Your task to perform on an android device: check out phone information Image 0: 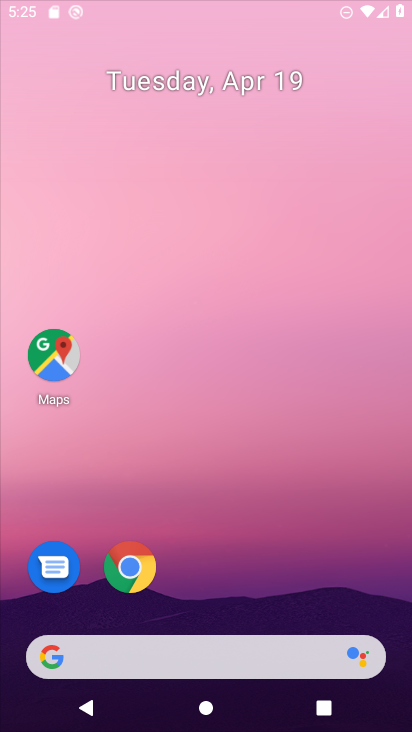
Step 0: click (282, 101)
Your task to perform on an android device: check out phone information Image 1: 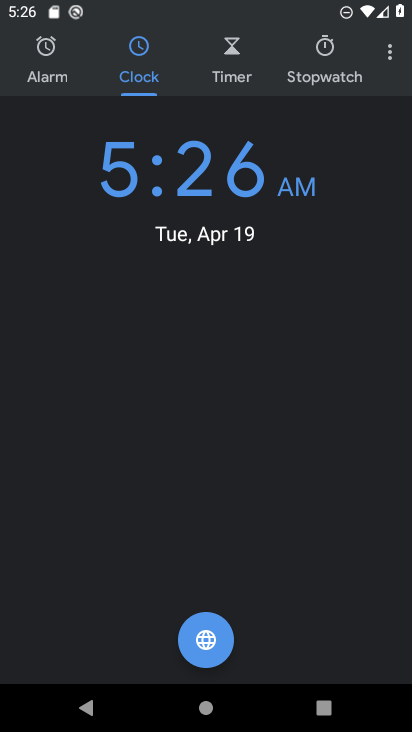
Step 1: press back button
Your task to perform on an android device: check out phone information Image 2: 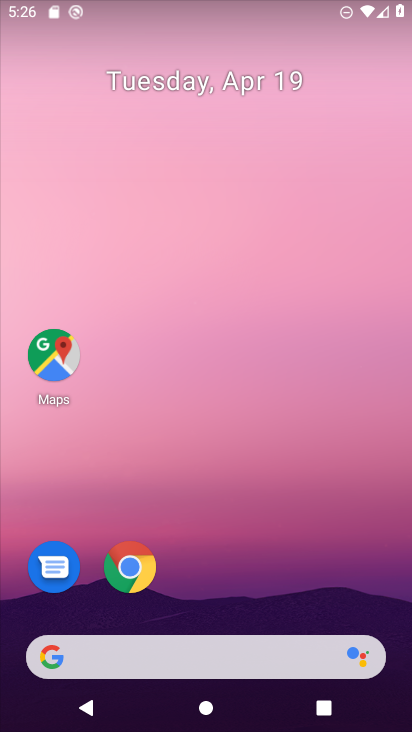
Step 2: drag from (289, 441) to (203, 8)
Your task to perform on an android device: check out phone information Image 3: 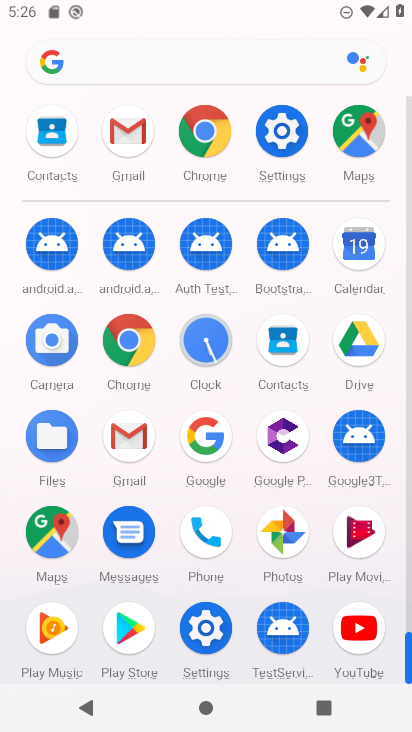
Step 3: drag from (4, 536) to (0, 287)
Your task to perform on an android device: check out phone information Image 4: 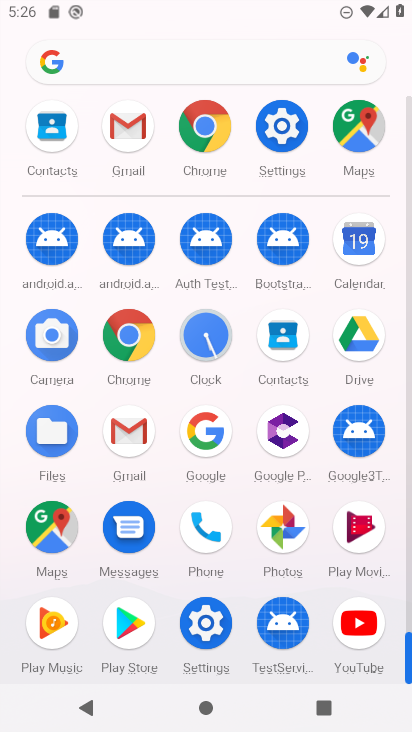
Step 4: click (206, 620)
Your task to perform on an android device: check out phone information Image 5: 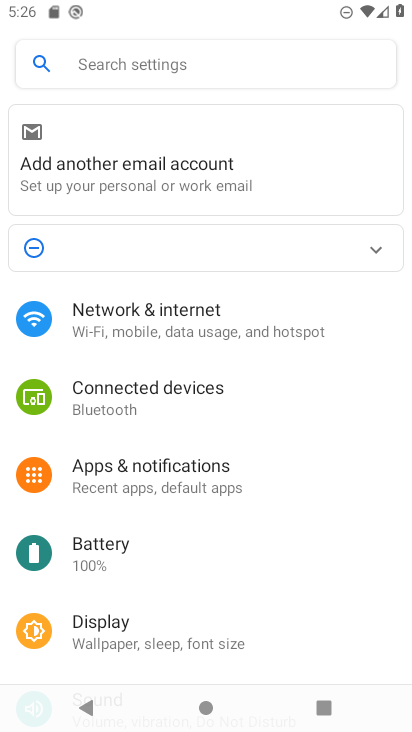
Step 5: drag from (282, 490) to (278, 114)
Your task to perform on an android device: check out phone information Image 6: 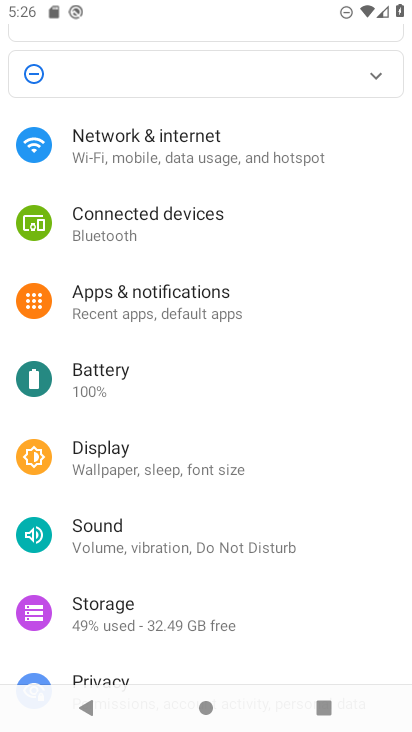
Step 6: click (290, 107)
Your task to perform on an android device: check out phone information Image 7: 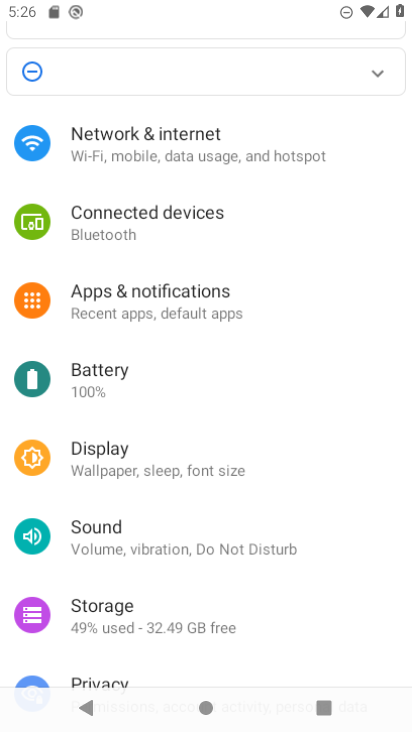
Step 7: drag from (266, 363) to (282, 112)
Your task to perform on an android device: check out phone information Image 8: 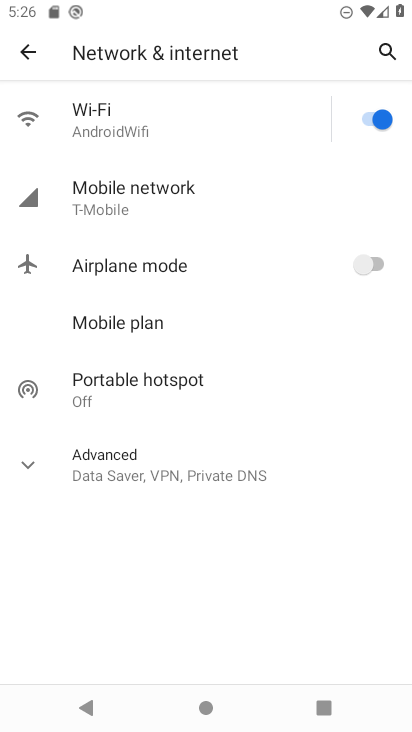
Step 8: click (44, 49)
Your task to perform on an android device: check out phone information Image 9: 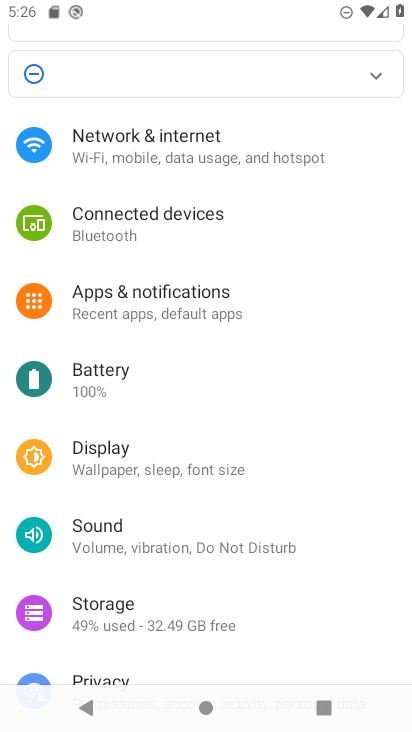
Step 9: drag from (246, 513) to (229, 103)
Your task to perform on an android device: check out phone information Image 10: 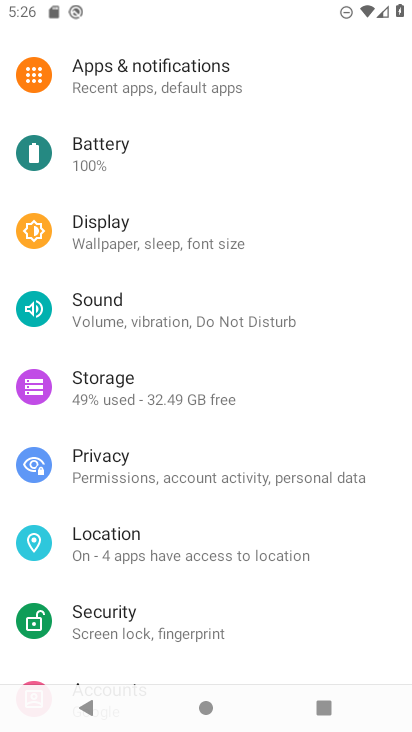
Step 10: drag from (230, 577) to (247, 175)
Your task to perform on an android device: check out phone information Image 11: 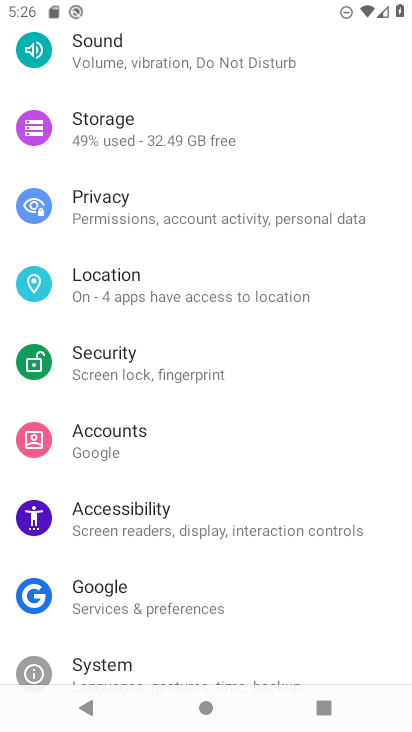
Step 11: drag from (261, 537) to (253, 24)
Your task to perform on an android device: check out phone information Image 12: 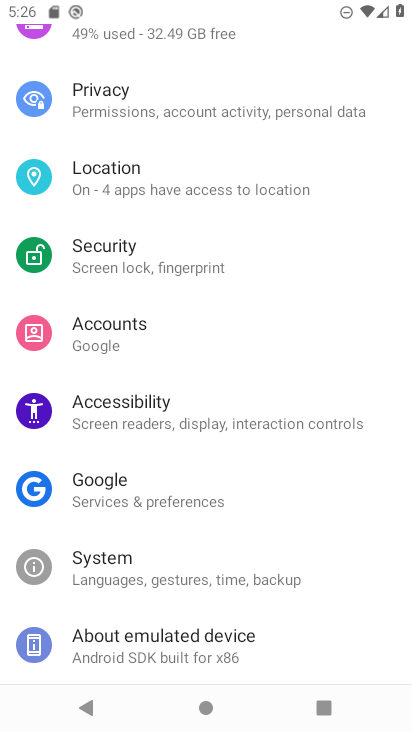
Step 12: click (155, 651)
Your task to perform on an android device: check out phone information Image 13: 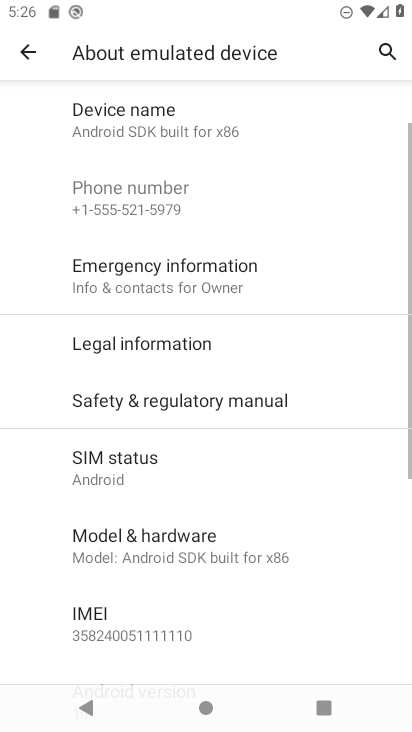
Step 13: task complete